Your task to perform on an android device: Open Google Chrome and open the bookmarks view Image 0: 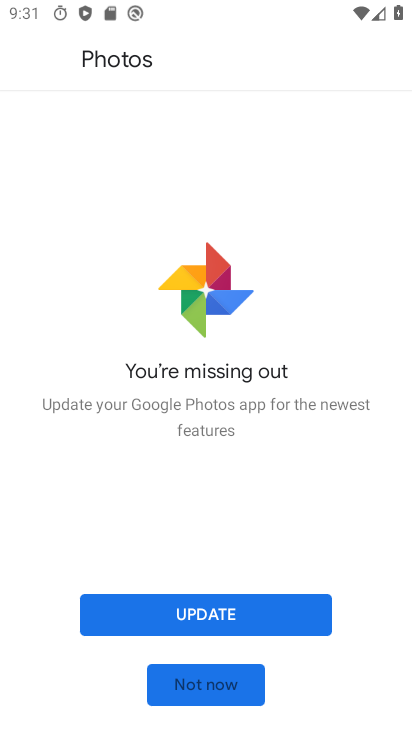
Step 0: press home button
Your task to perform on an android device: Open Google Chrome and open the bookmarks view Image 1: 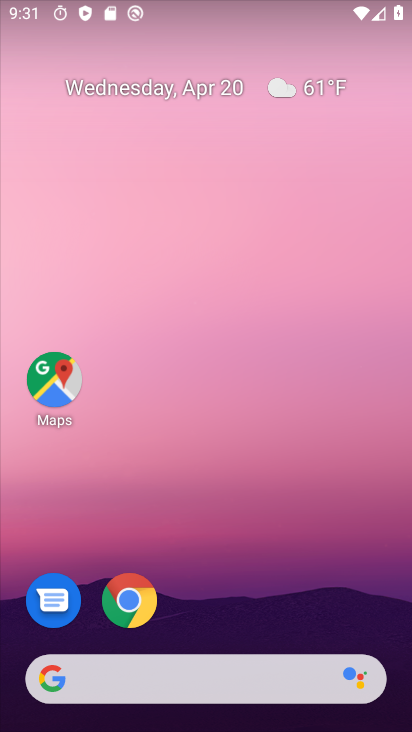
Step 1: click (135, 602)
Your task to perform on an android device: Open Google Chrome and open the bookmarks view Image 2: 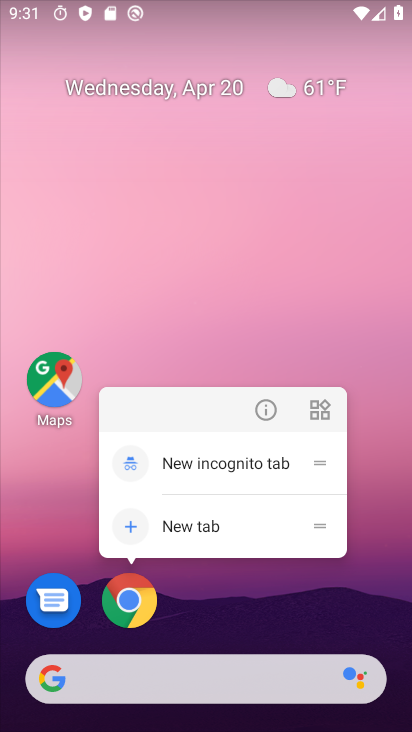
Step 2: click (126, 606)
Your task to perform on an android device: Open Google Chrome and open the bookmarks view Image 3: 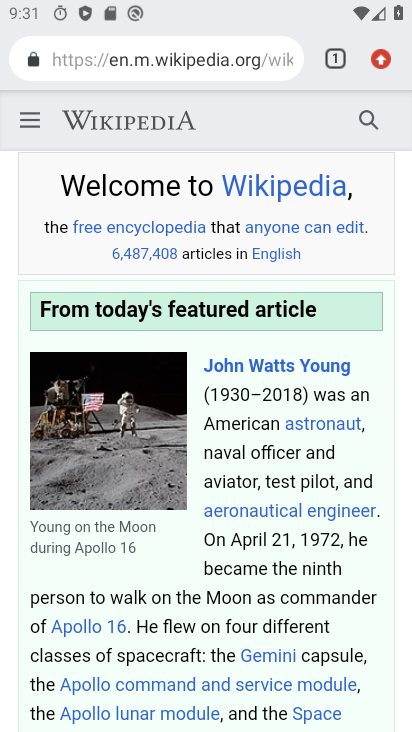
Step 3: click (382, 60)
Your task to perform on an android device: Open Google Chrome and open the bookmarks view Image 4: 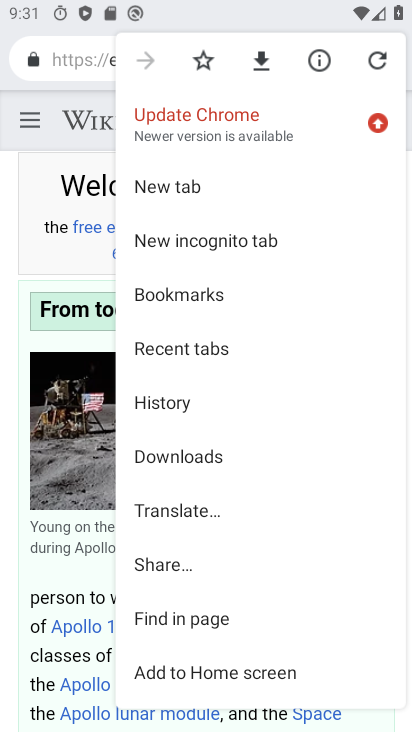
Step 4: click (173, 298)
Your task to perform on an android device: Open Google Chrome and open the bookmarks view Image 5: 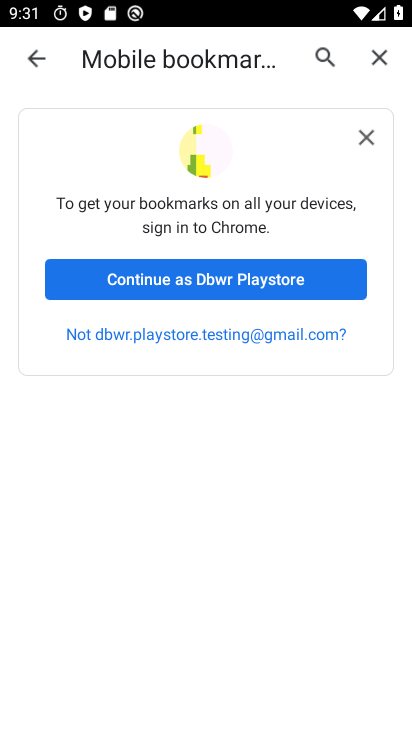
Step 5: click (235, 288)
Your task to perform on an android device: Open Google Chrome and open the bookmarks view Image 6: 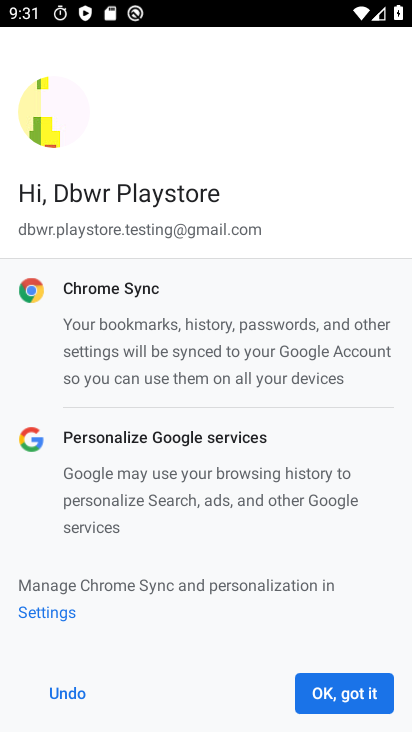
Step 6: click (349, 695)
Your task to perform on an android device: Open Google Chrome and open the bookmarks view Image 7: 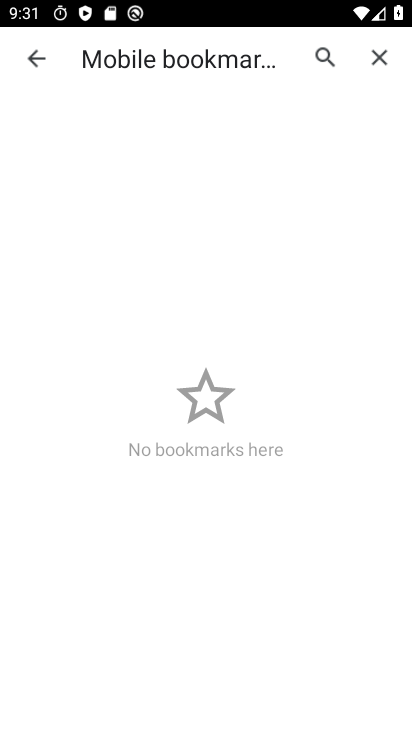
Step 7: task complete